Your task to perform on an android device: change the upload size in google photos Image 0: 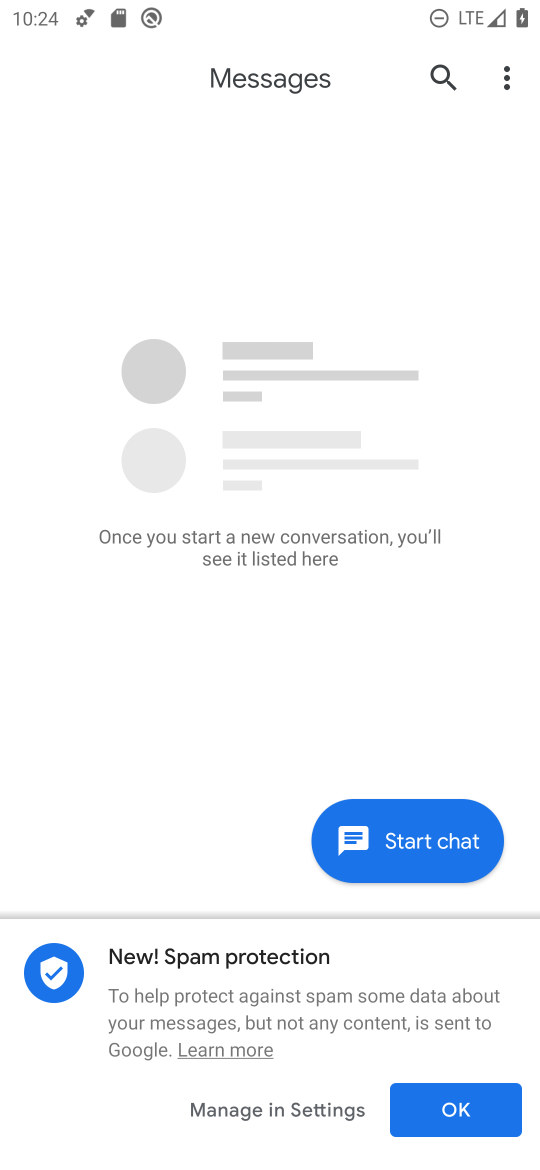
Step 0: press home button
Your task to perform on an android device: change the upload size in google photos Image 1: 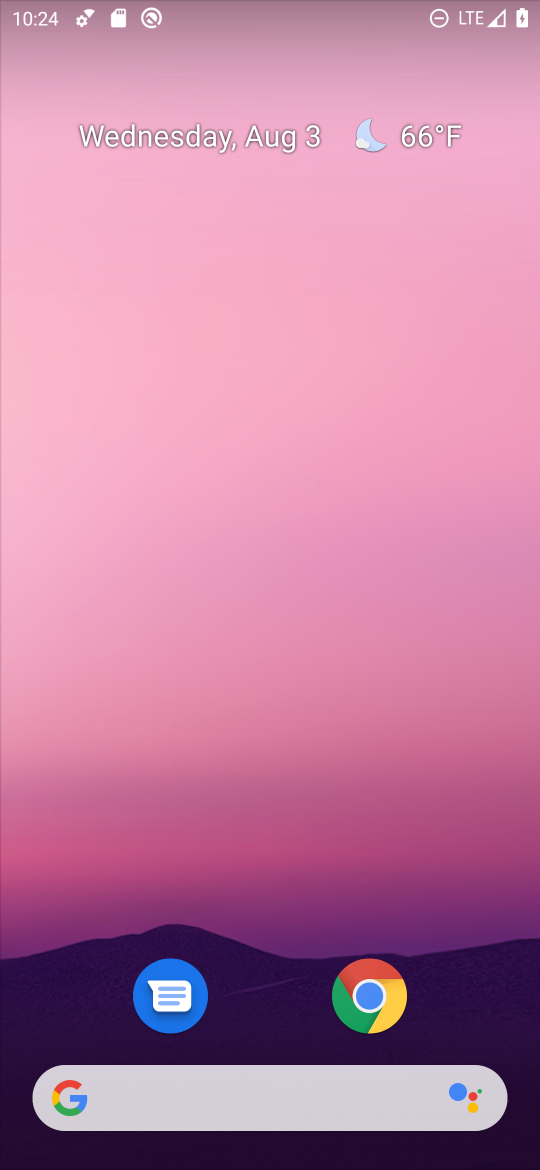
Step 1: drag from (298, 832) to (343, 21)
Your task to perform on an android device: change the upload size in google photos Image 2: 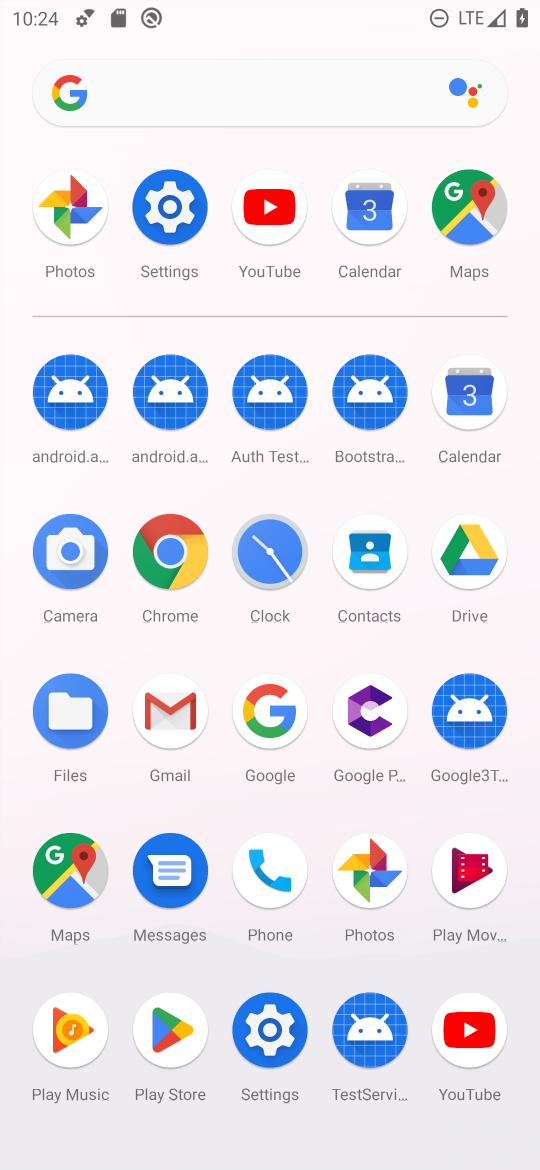
Step 2: click (368, 873)
Your task to perform on an android device: change the upload size in google photos Image 3: 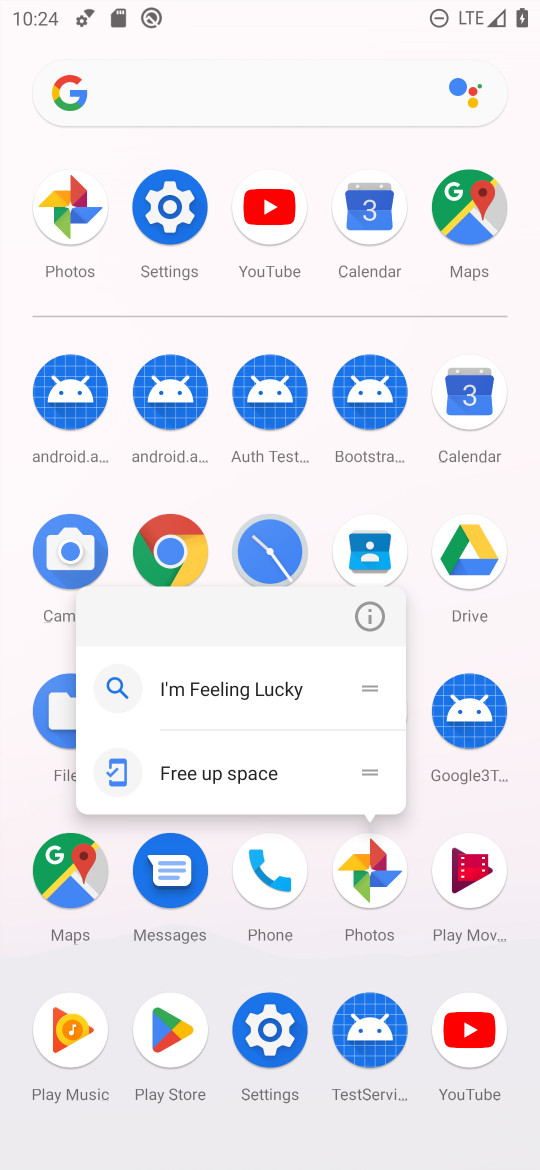
Step 3: click (373, 877)
Your task to perform on an android device: change the upload size in google photos Image 4: 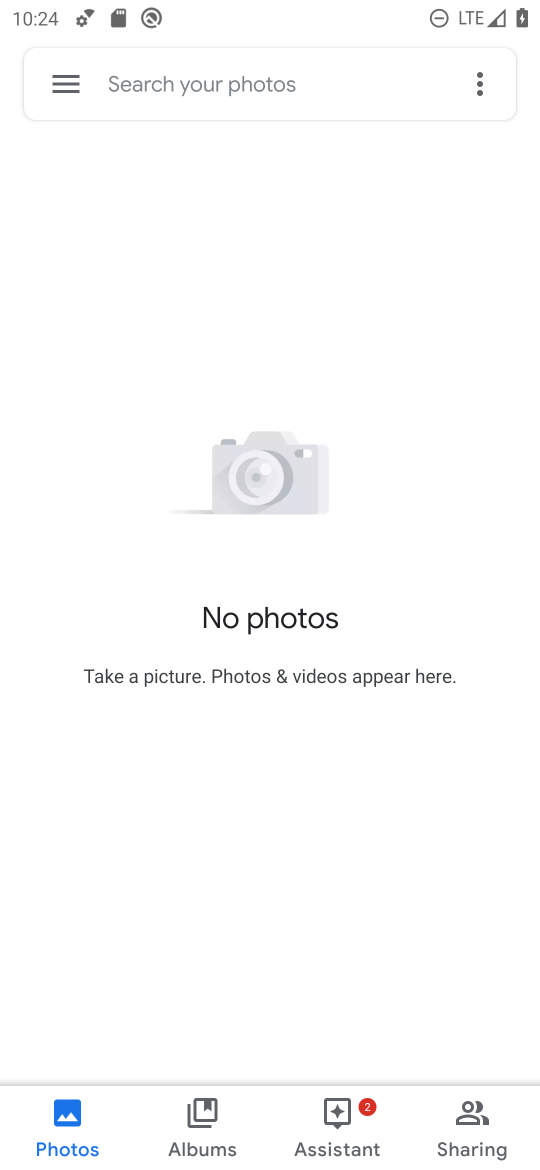
Step 4: click (63, 72)
Your task to perform on an android device: change the upload size in google photos Image 5: 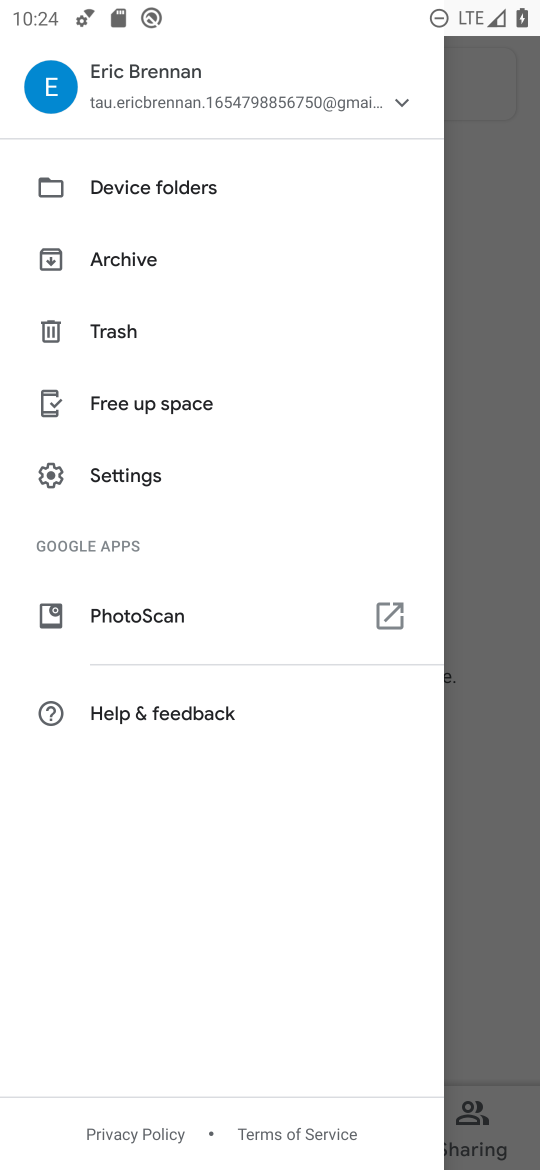
Step 5: click (142, 463)
Your task to perform on an android device: change the upload size in google photos Image 6: 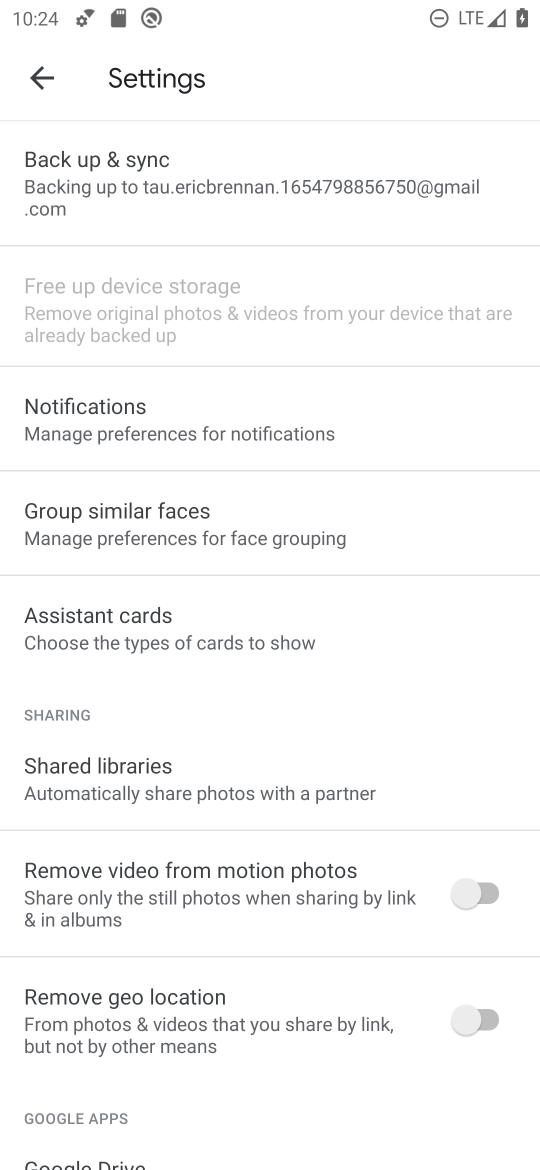
Step 6: click (178, 183)
Your task to perform on an android device: change the upload size in google photos Image 7: 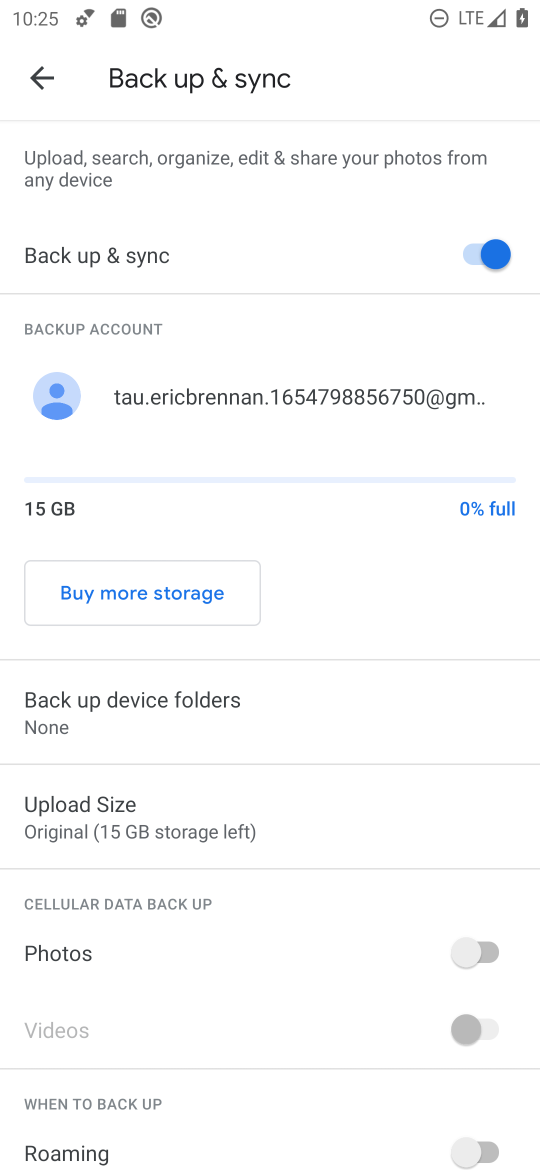
Step 7: click (161, 796)
Your task to perform on an android device: change the upload size in google photos Image 8: 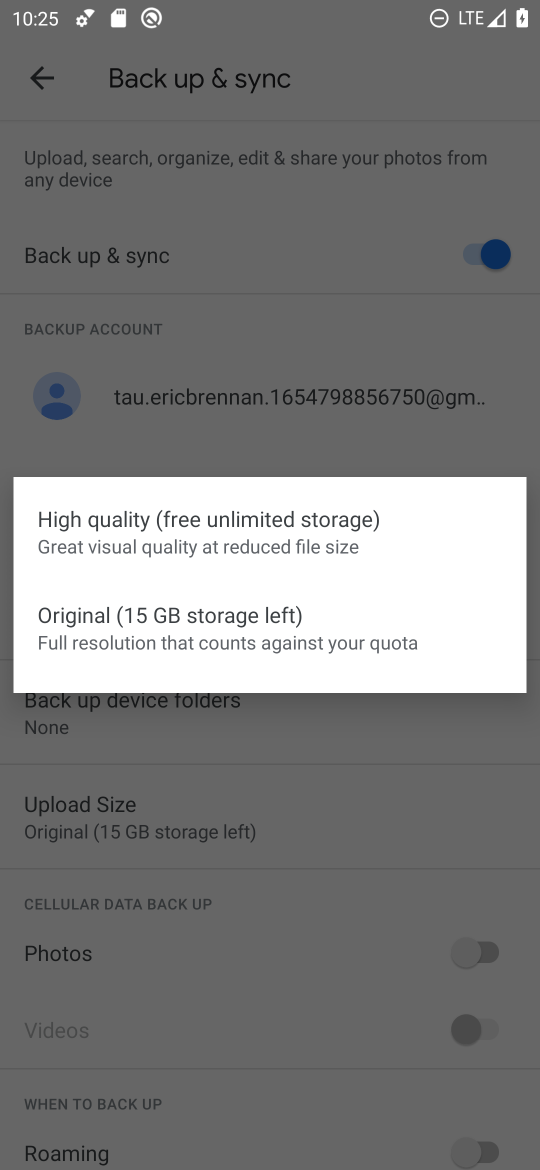
Step 8: click (186, 536)
Your task to perform on an android device: change the upload size in google photos Image 9: 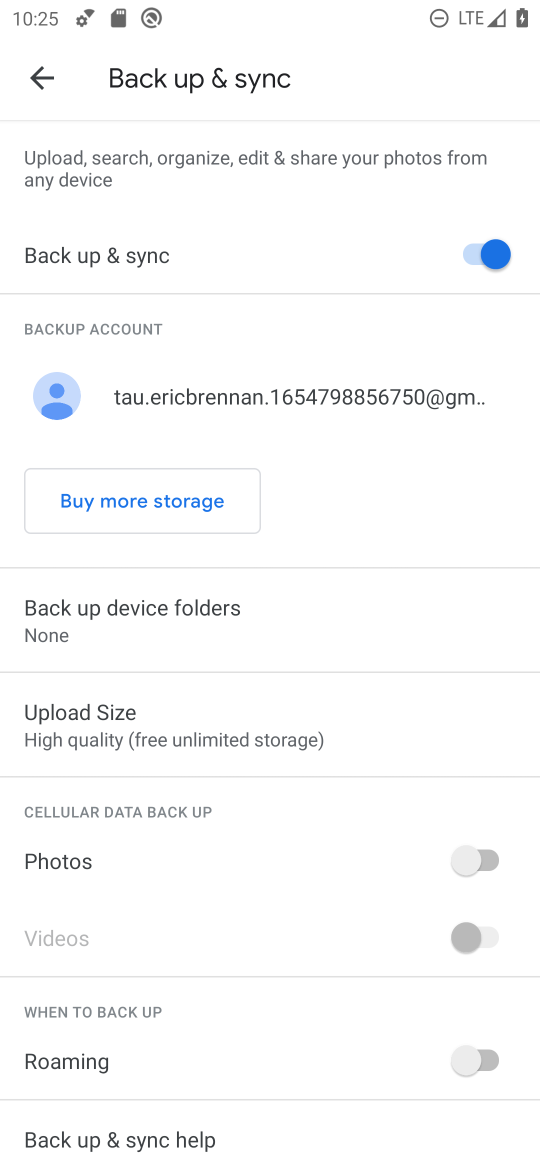
Step 9: task complete